Your task to perform on an android device: Show me some nice wallpapers for my tablet Image 0: 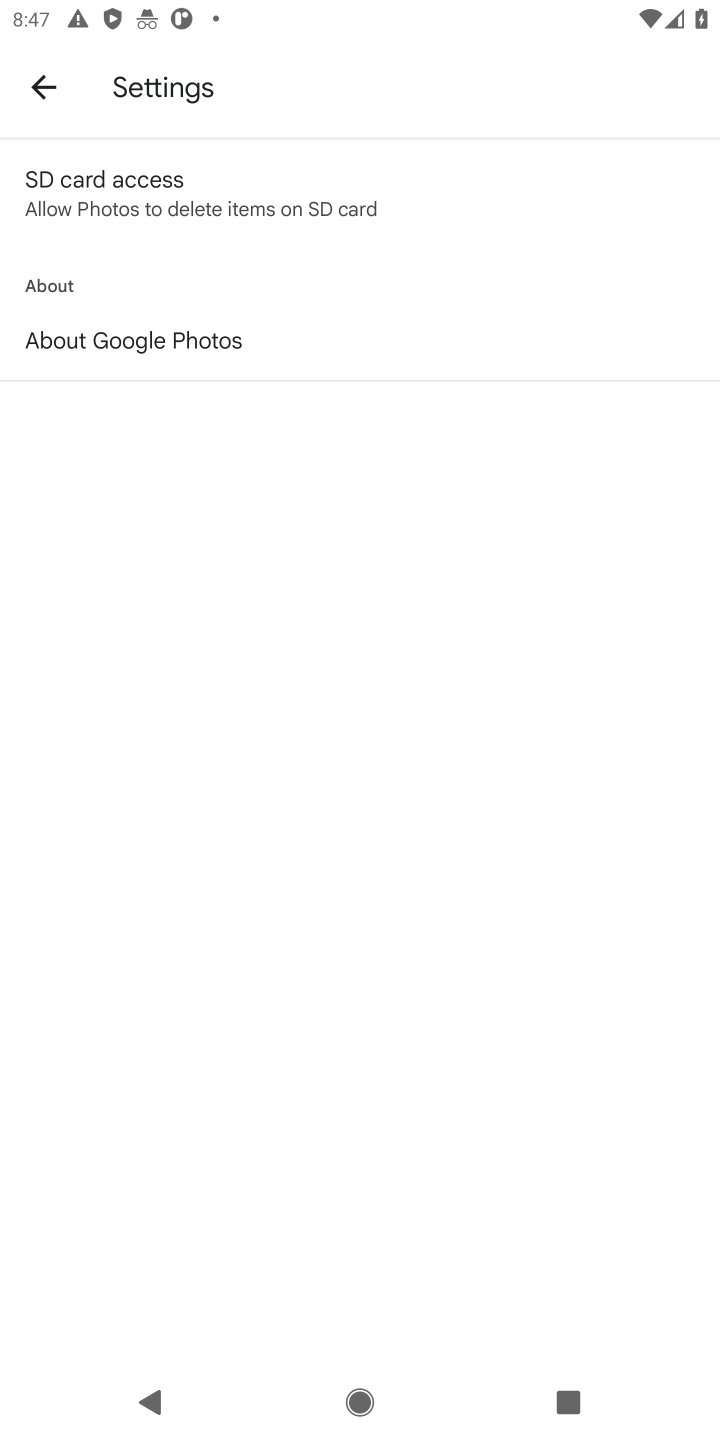
Step 0: press home button
Your task to perform on an android device: Show me some nice wallpapers for my tablet Image 1: 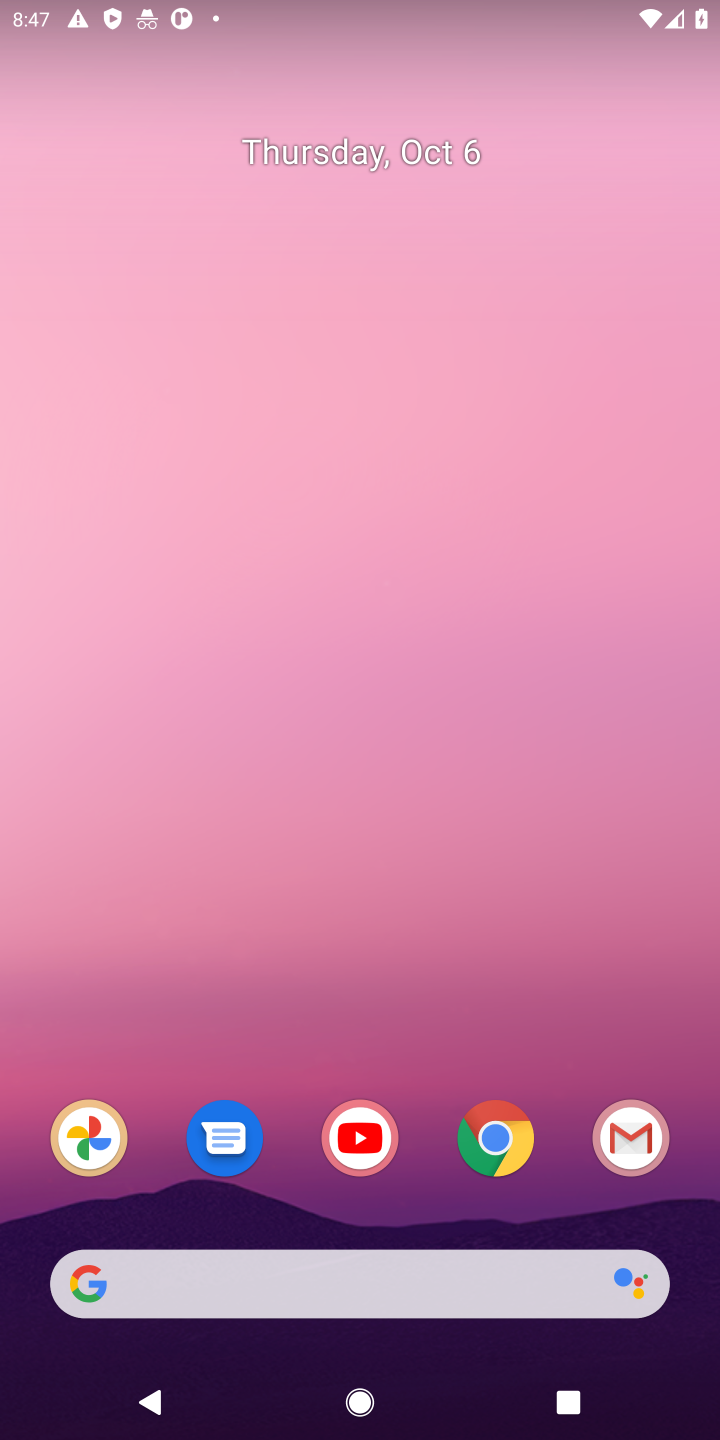
Step 1: click (495, 1135)
Your task to perform on an android device: Show me some nice wallpapers for my tablet Image 2: 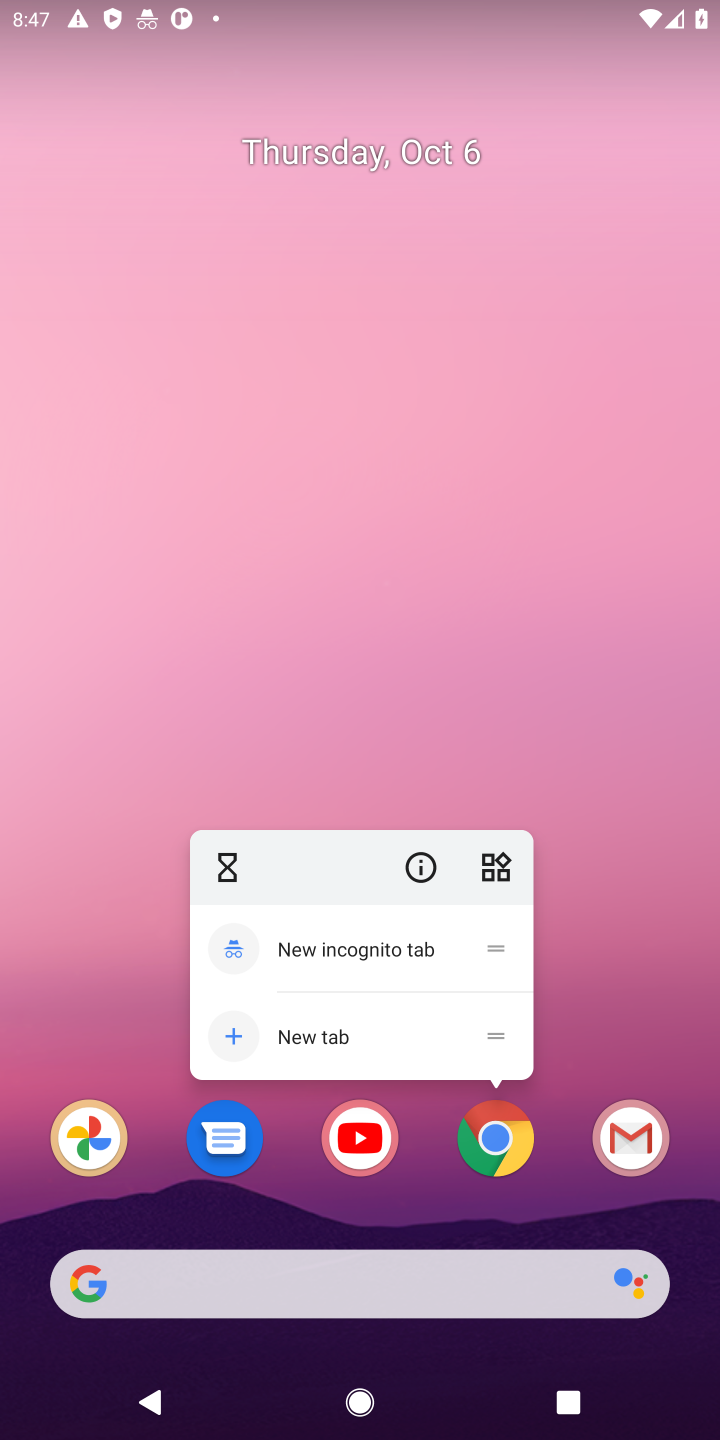
Step 2: click (488, 1148)
Your task to perform on an android device: Show me some nice wallpapers for my tablet Image 3: 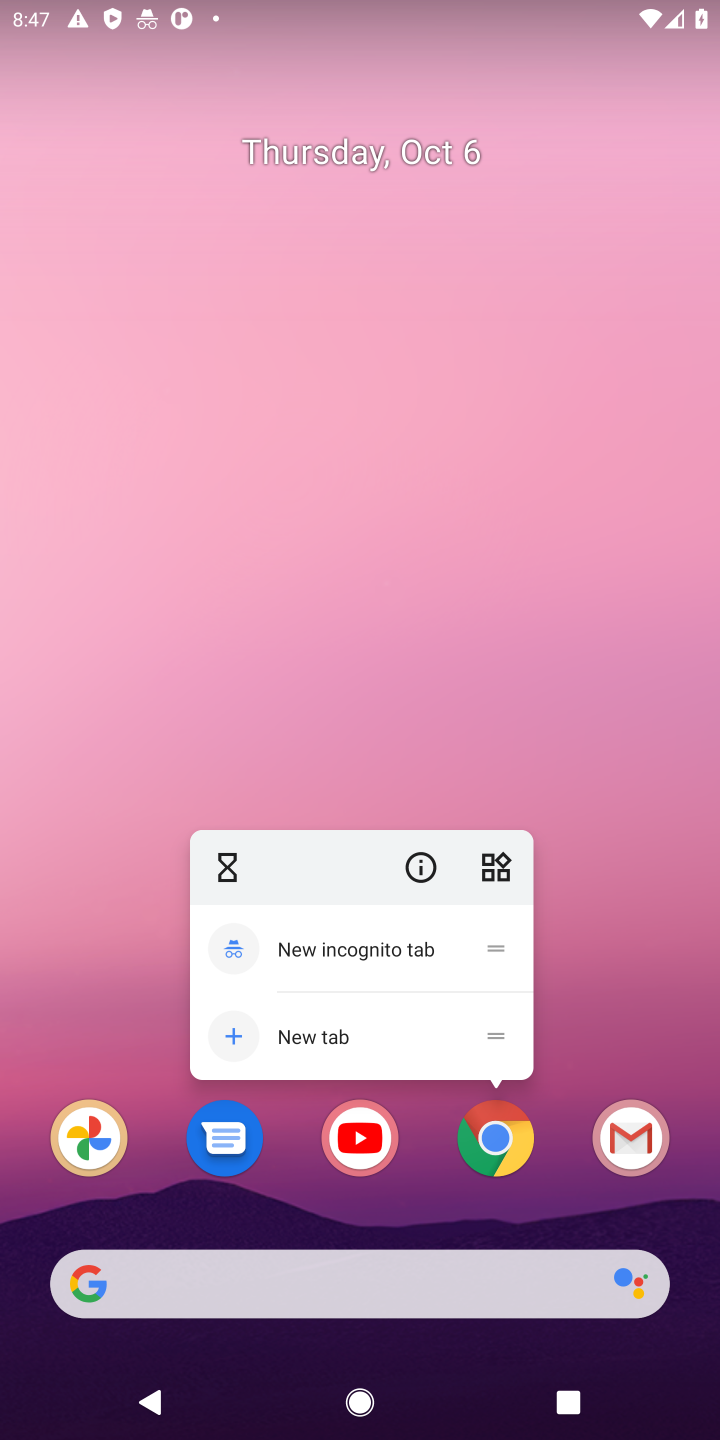
Step 3: click (484, 1142)
Your task to perform on an android device: Show me some nice wallpapers for my tablet Image 4: 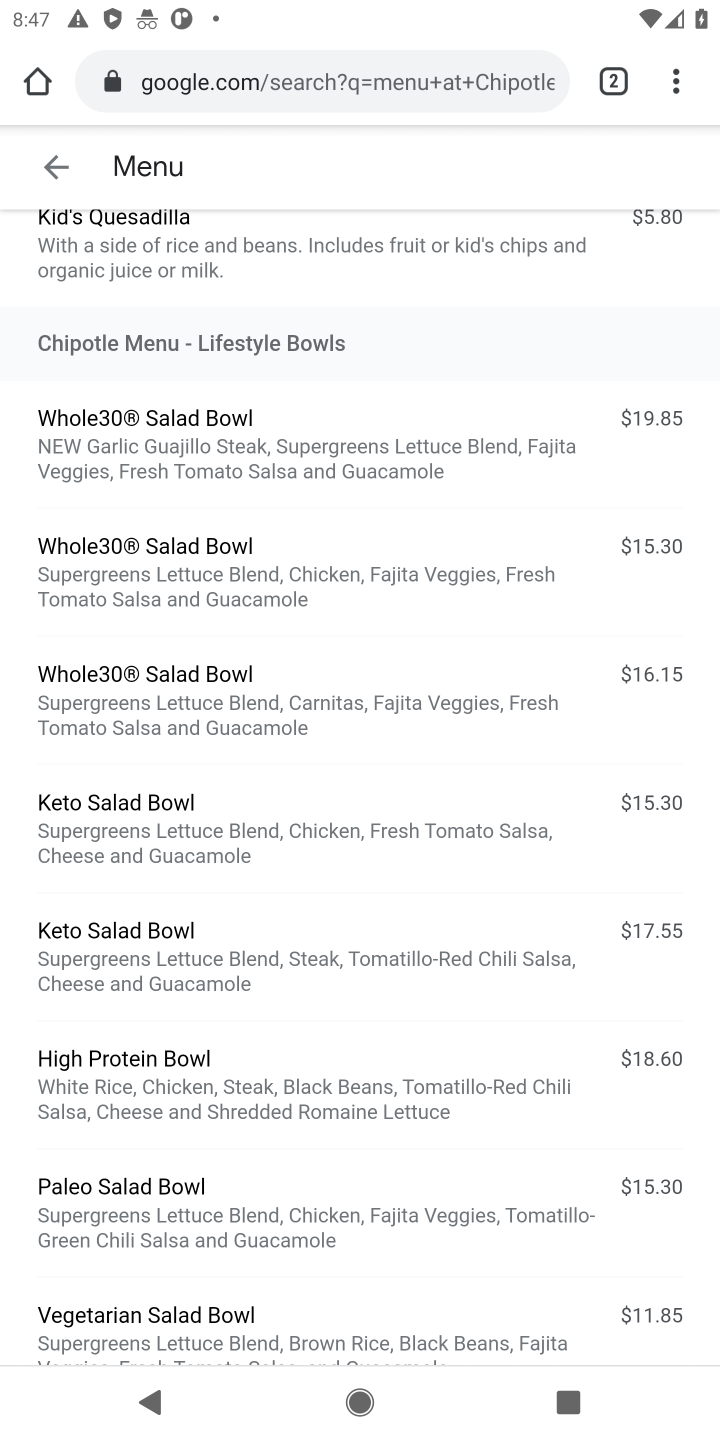
Step 4: click (391, 72)
Your task to perform on an android device: Show me some nice wallpapers for my tablet Image 5: 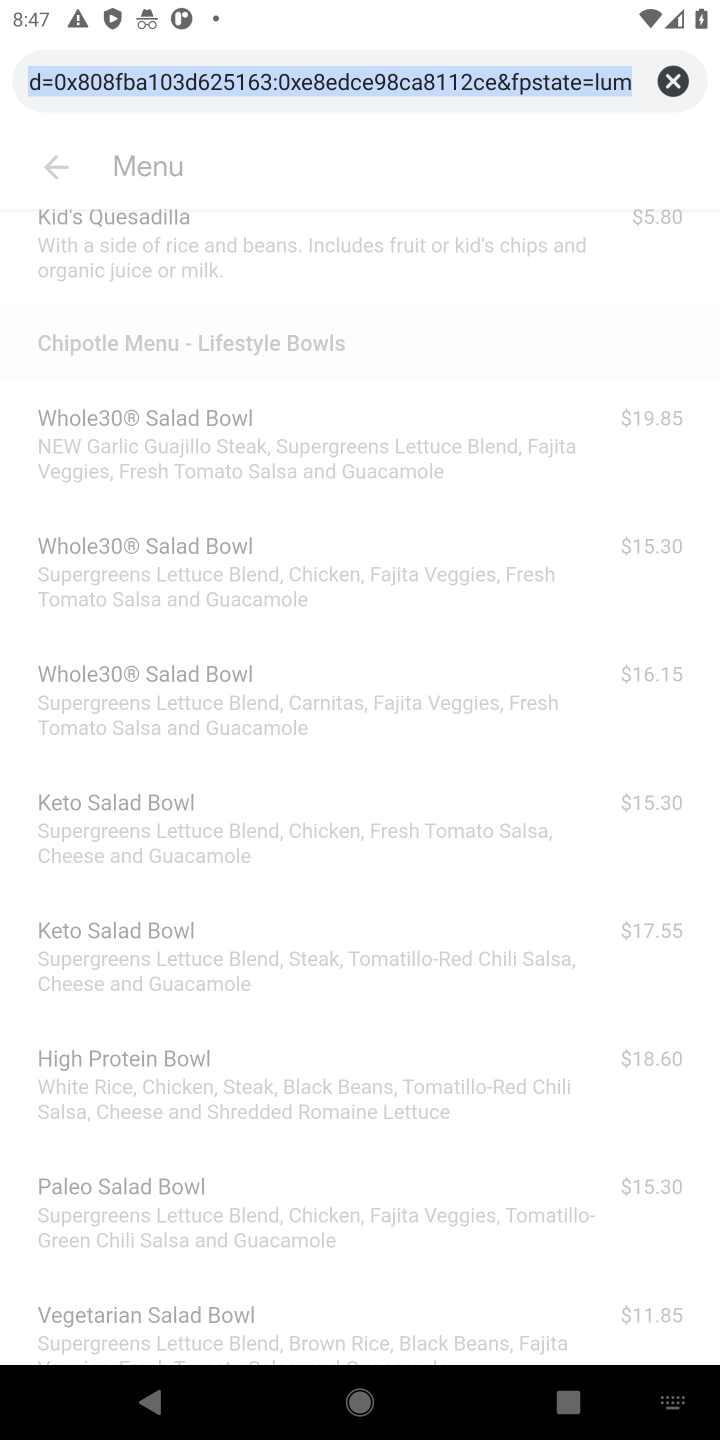
Step 5: click (666, 82)
Your task to perform on an android device: Show me some nice wallpapers for my tablet Image 6: 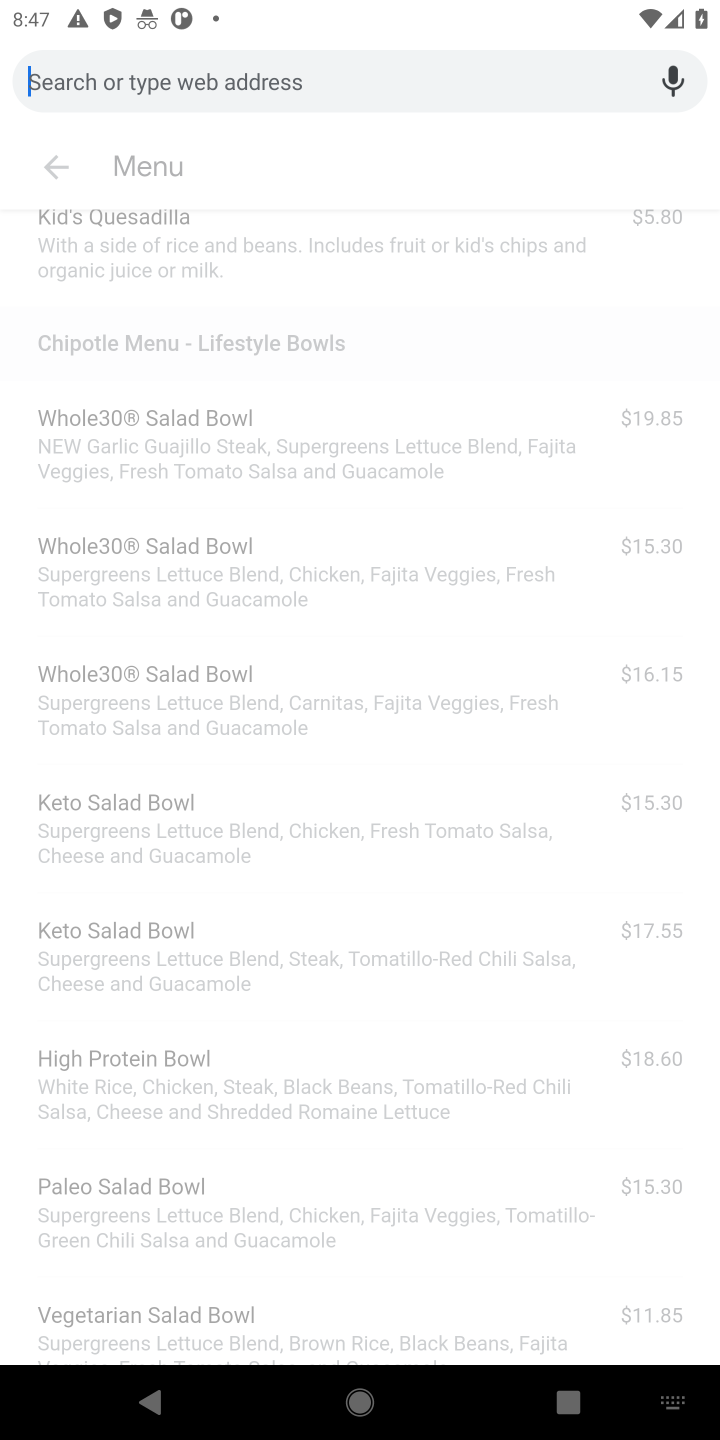
Step 6: type "nice wallpapers for my tablet"
Your task to perform on an android device: Show me some nice wallpapers for my tablet Image 7: 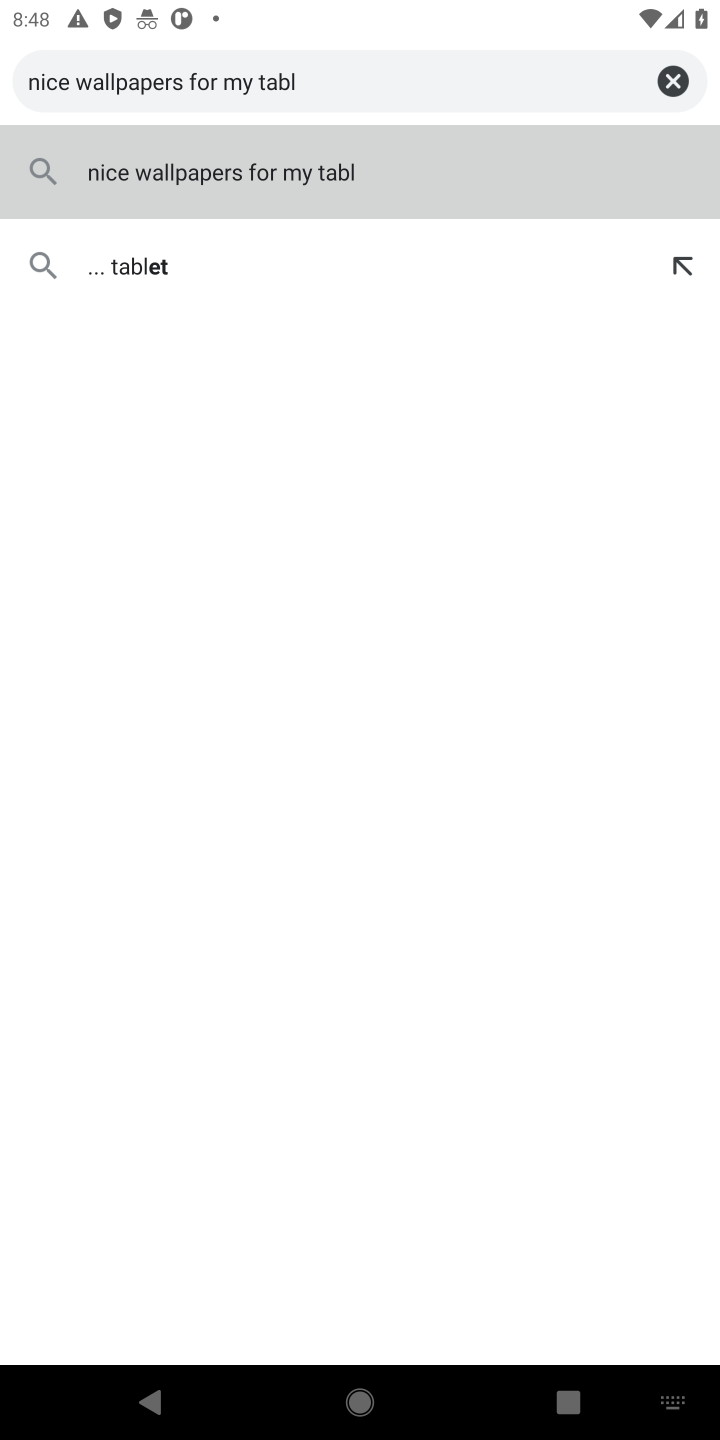
Step 7: type "e"
Your task to perform on an android device: Show me some nice wallpapers for my tablet Image 8: 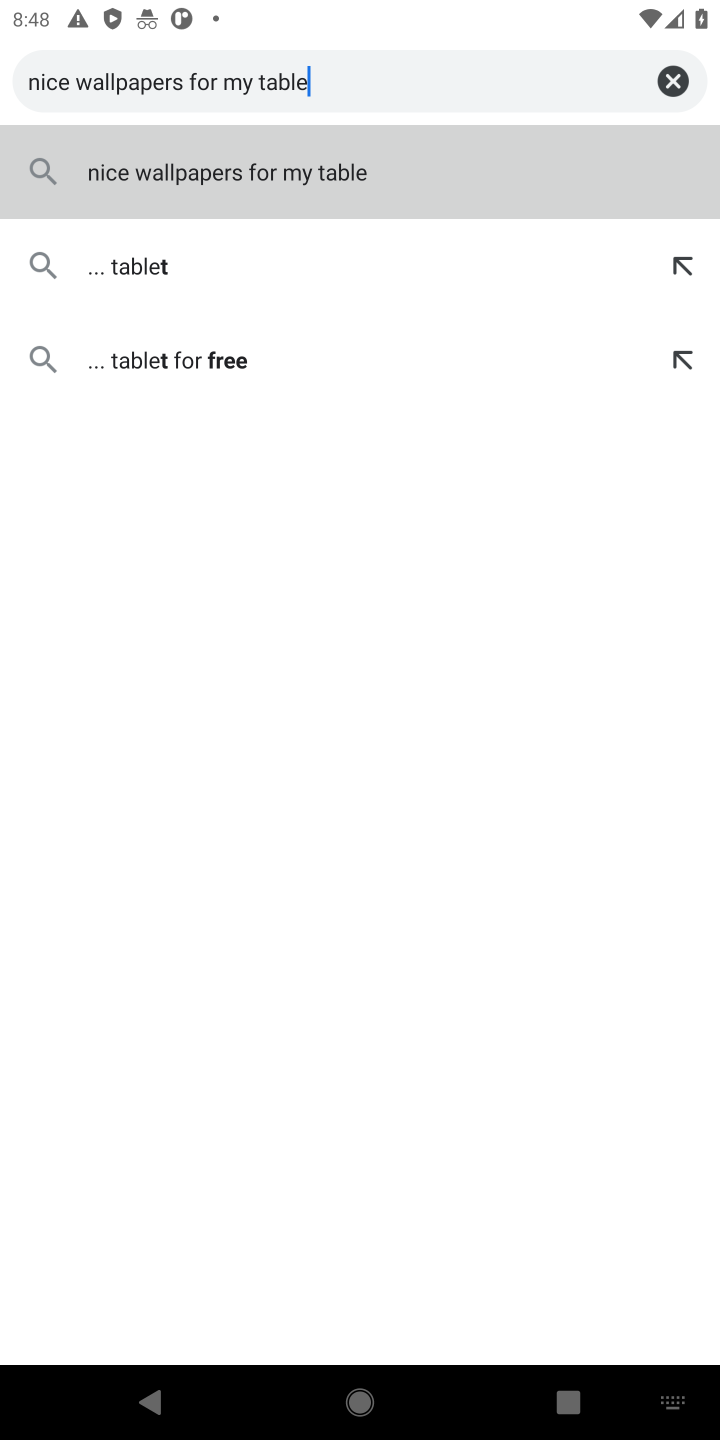
Step 8: press enter
Your task to perform on an android device: Show me some nice wallpapers for my tablet Image 9: 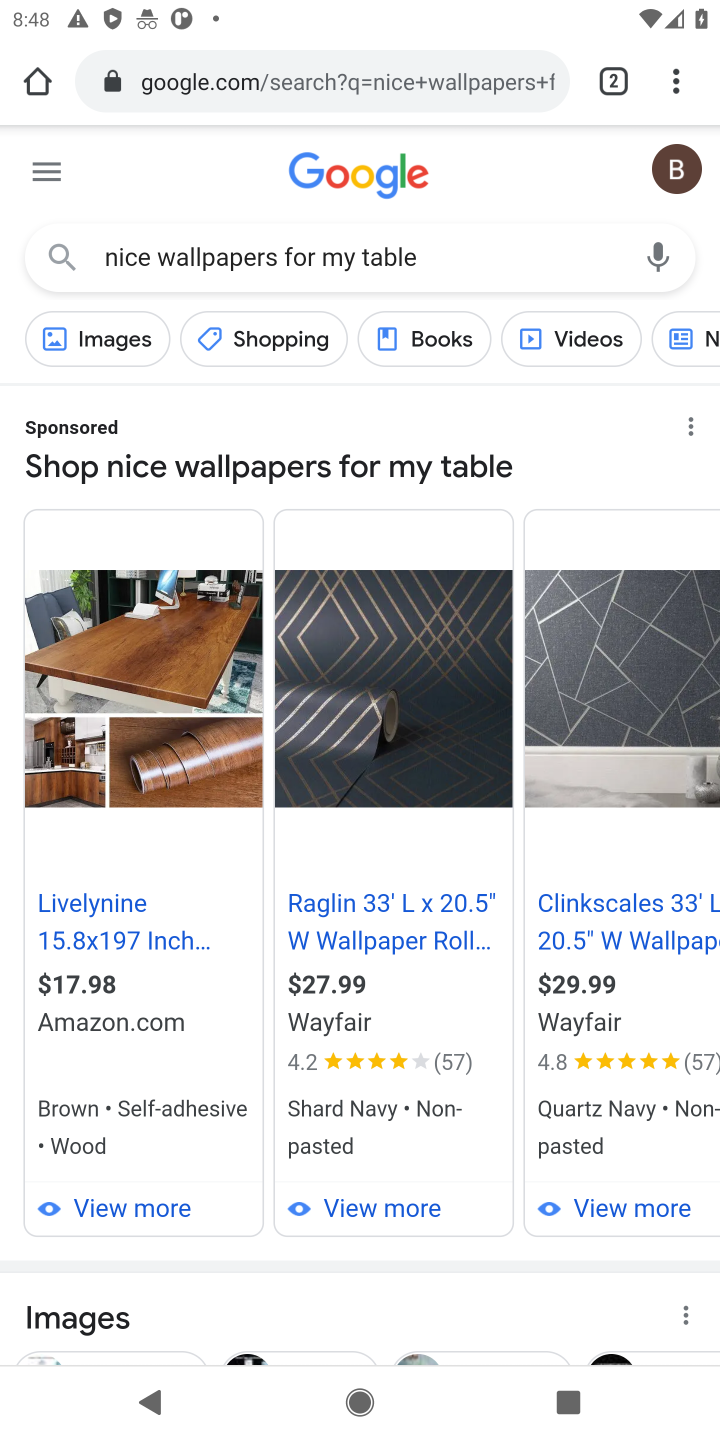
Step 9: drag from (406, 1081) to (598, 360)
Your task to perform on an android device: Show me some nice wallpapers for my tablet Image 10: 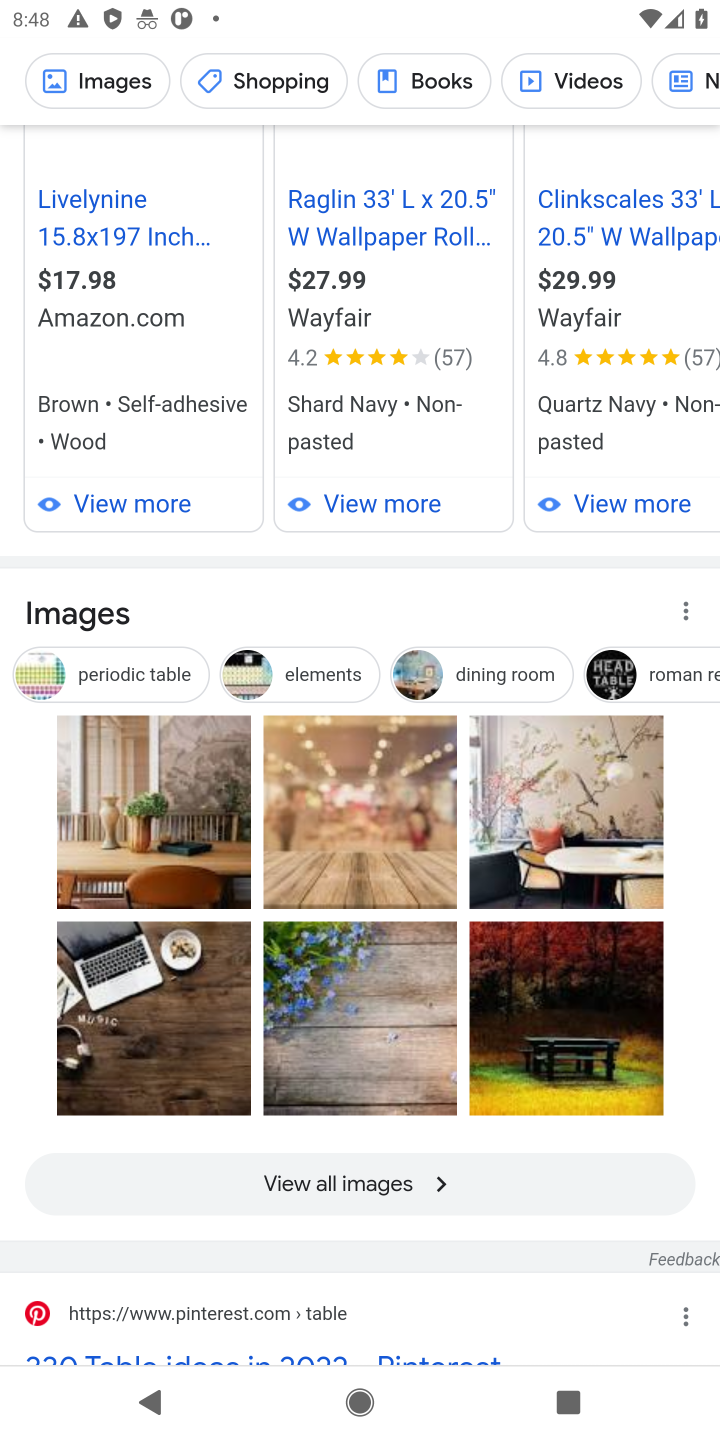
Step 10: click (84, 615)
Your task to perform on an android device: Show me some nice wallpapers for my tablet Image 11: 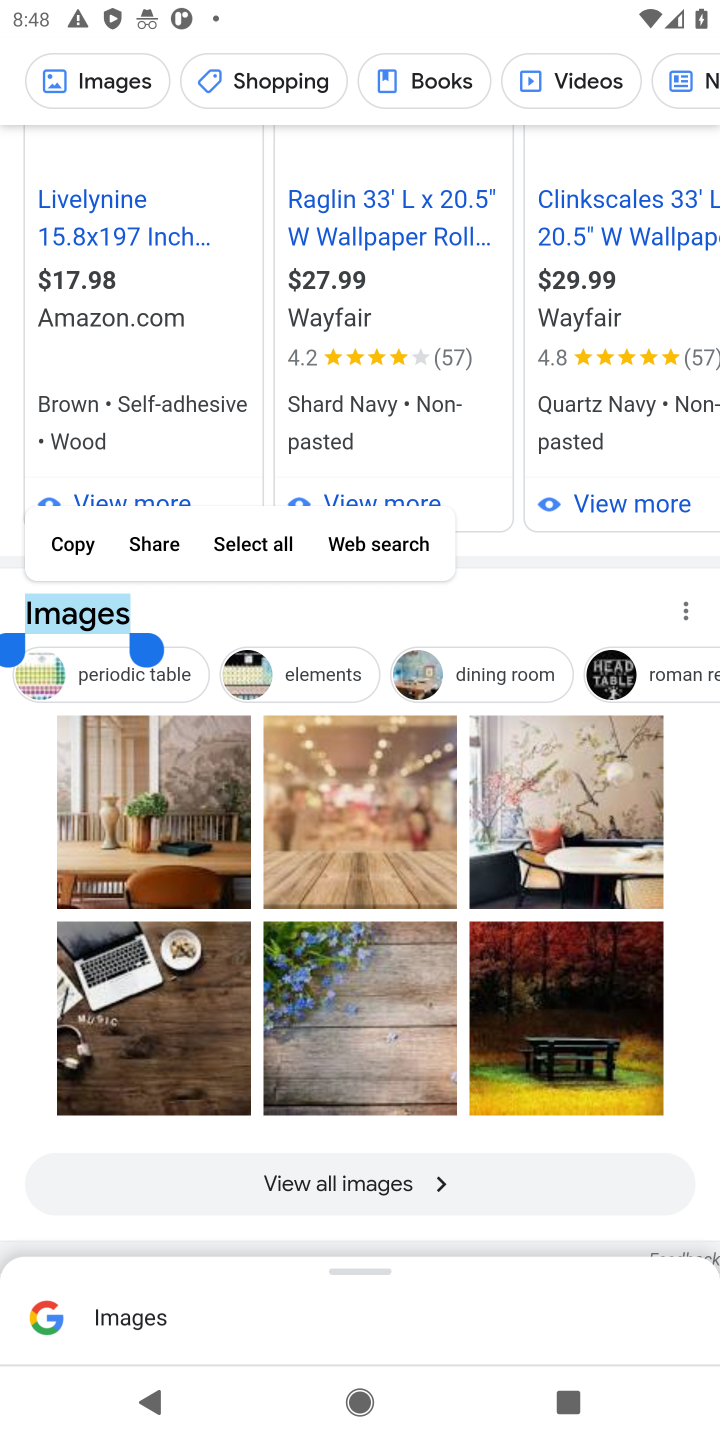
Step 11: click (67, 620)
Your task to perform on an android device: Show me some nice wallpapers for my tablet Image 12: 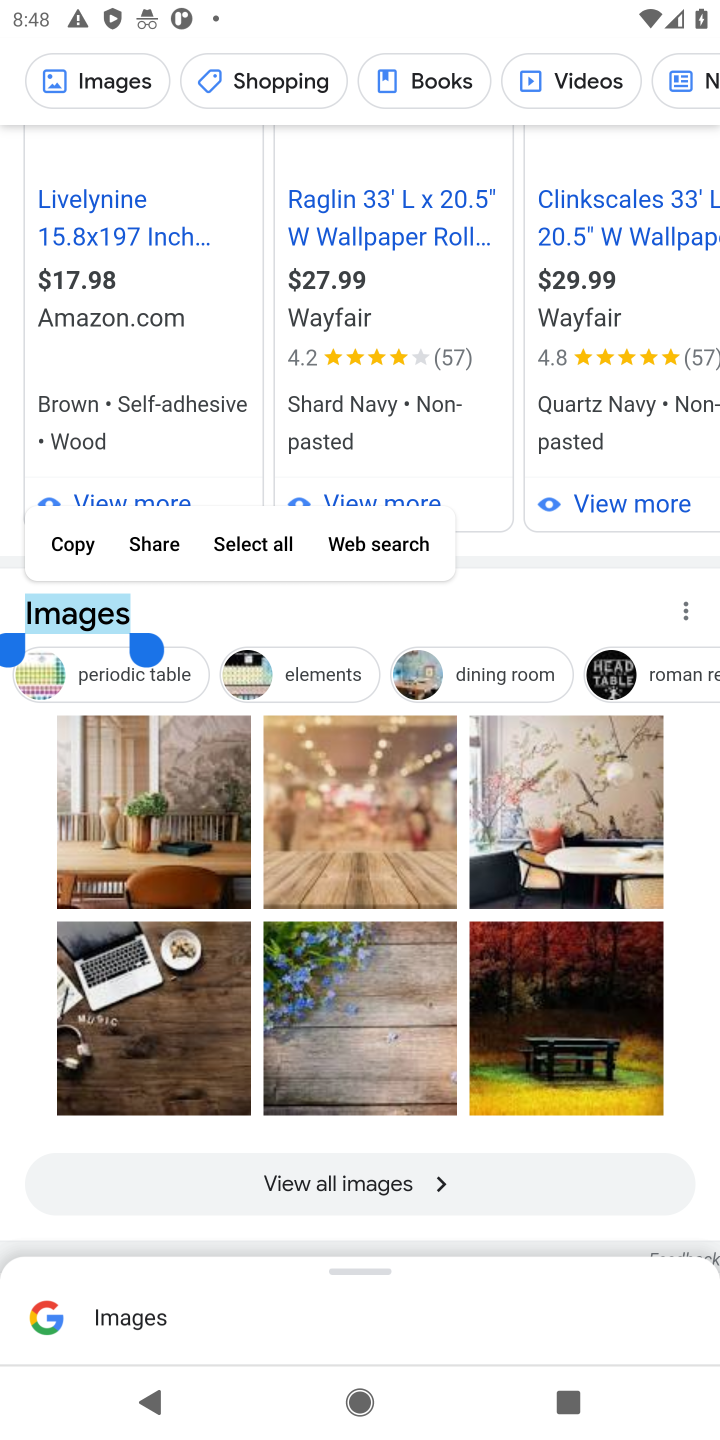
Step 12: click (379, 1180)
Your task to perform on an android device: Show me some nice wallpapers for my tablet Image 13: 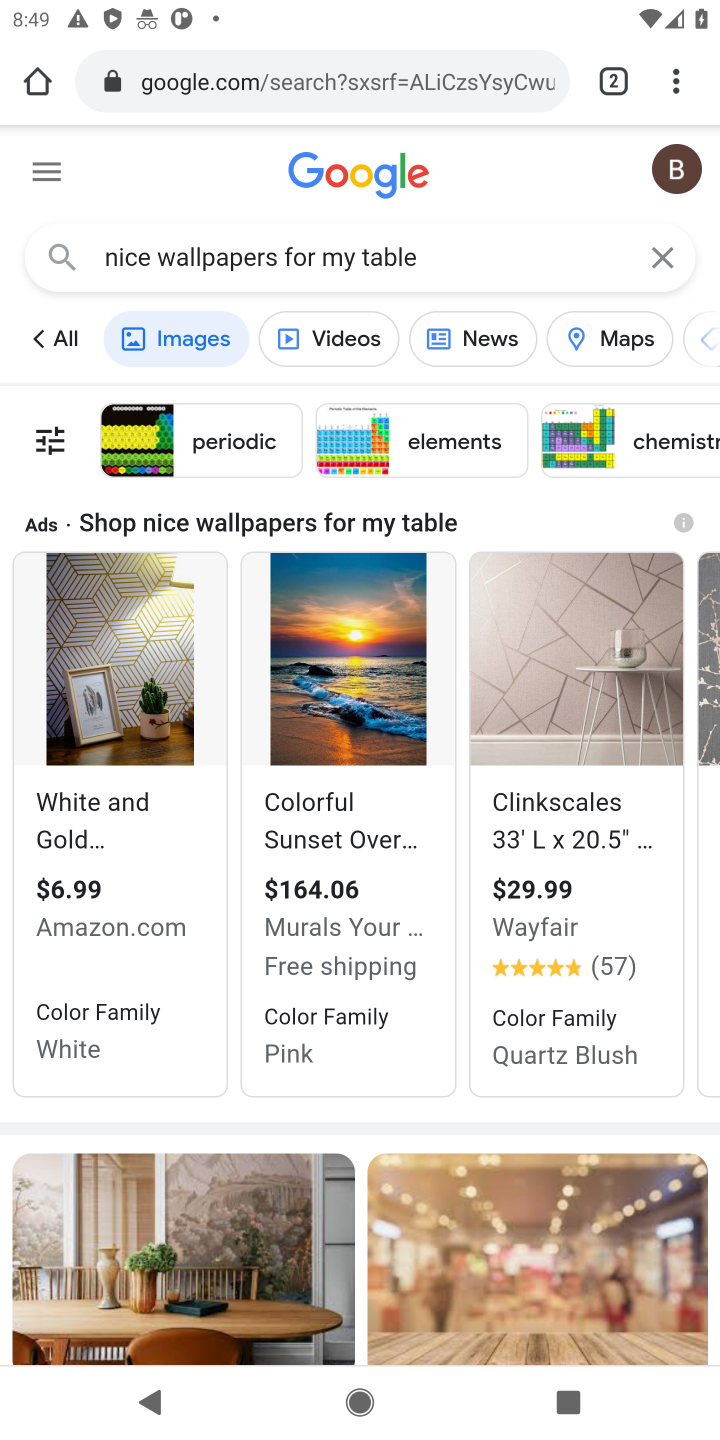
Step 13: task complete